Your task to perform on an android device: Go to display settings Image 0: 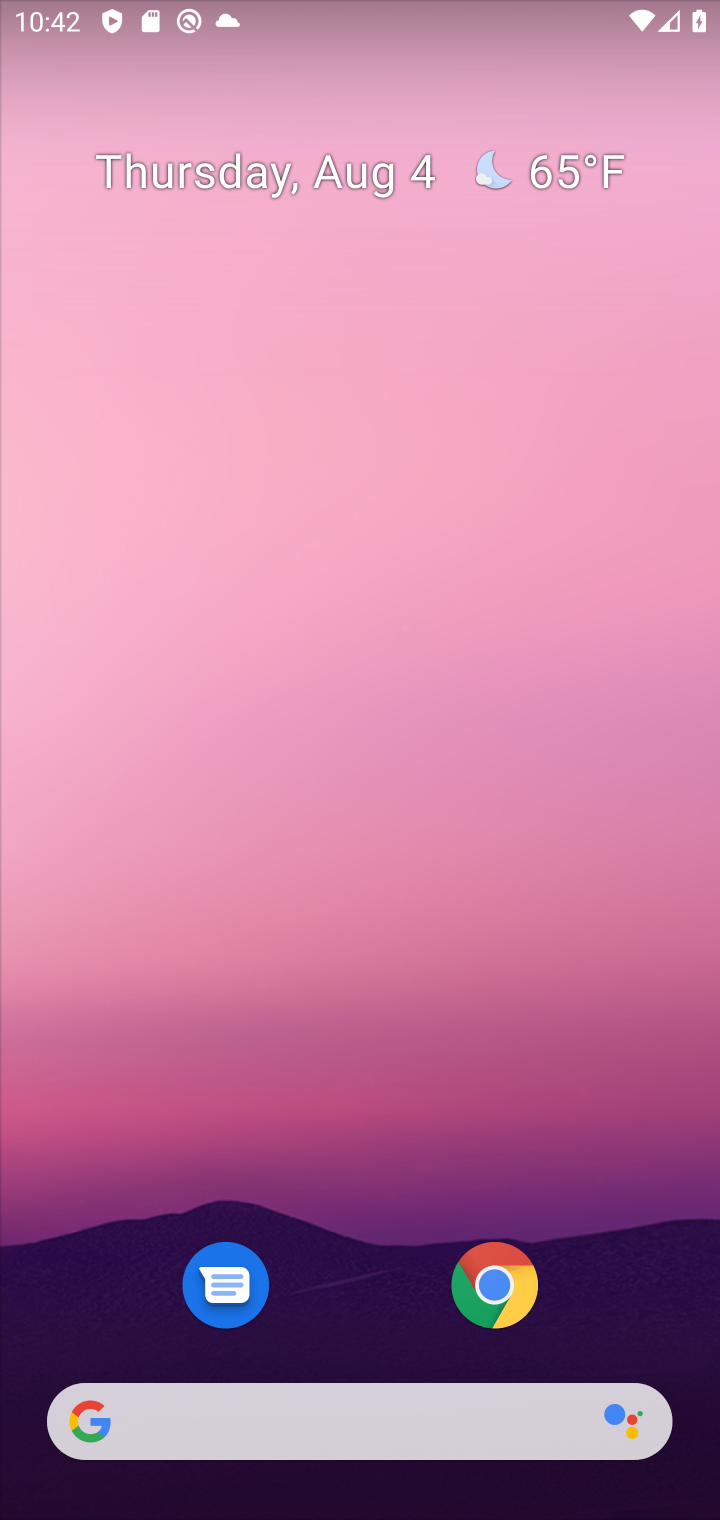
Step 0: drag from (330, 1258) to (327, 257)
Your task to perform on an android device: Go to display settings Image 1: 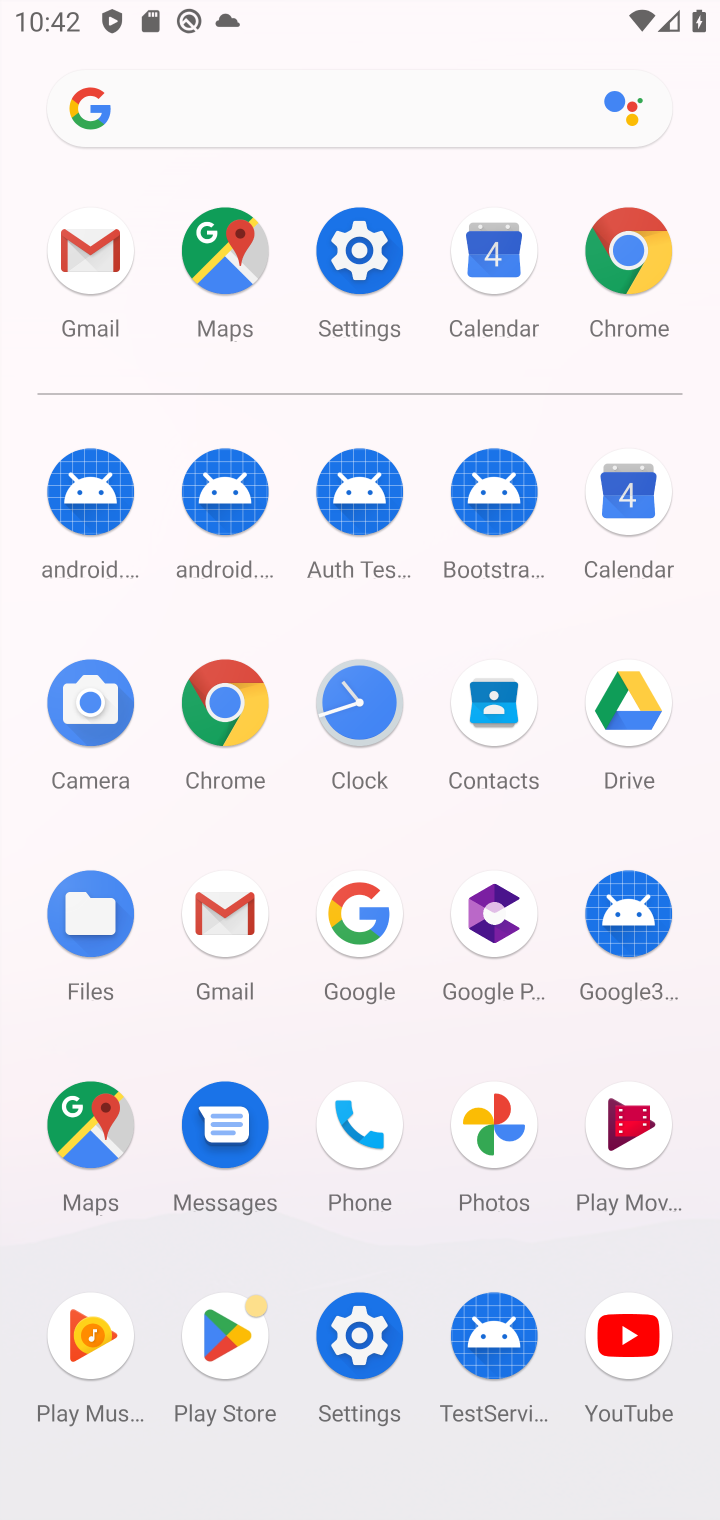
Step 1: click (352, 234)
Your task to perform on an android device: Go to display settings Image 2: 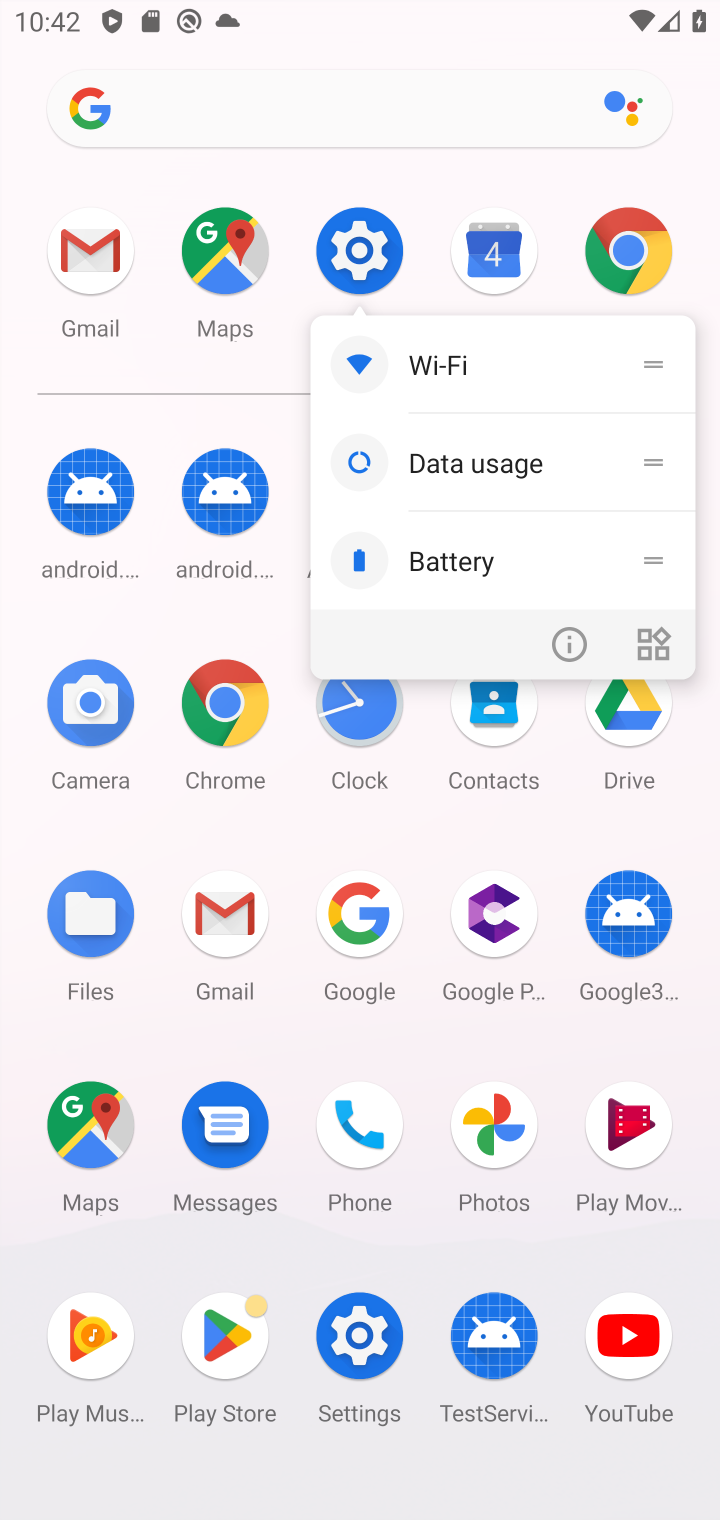
Step 2: click (367, 269)
Your task to perform on an android device: Go to display settings Image 3: 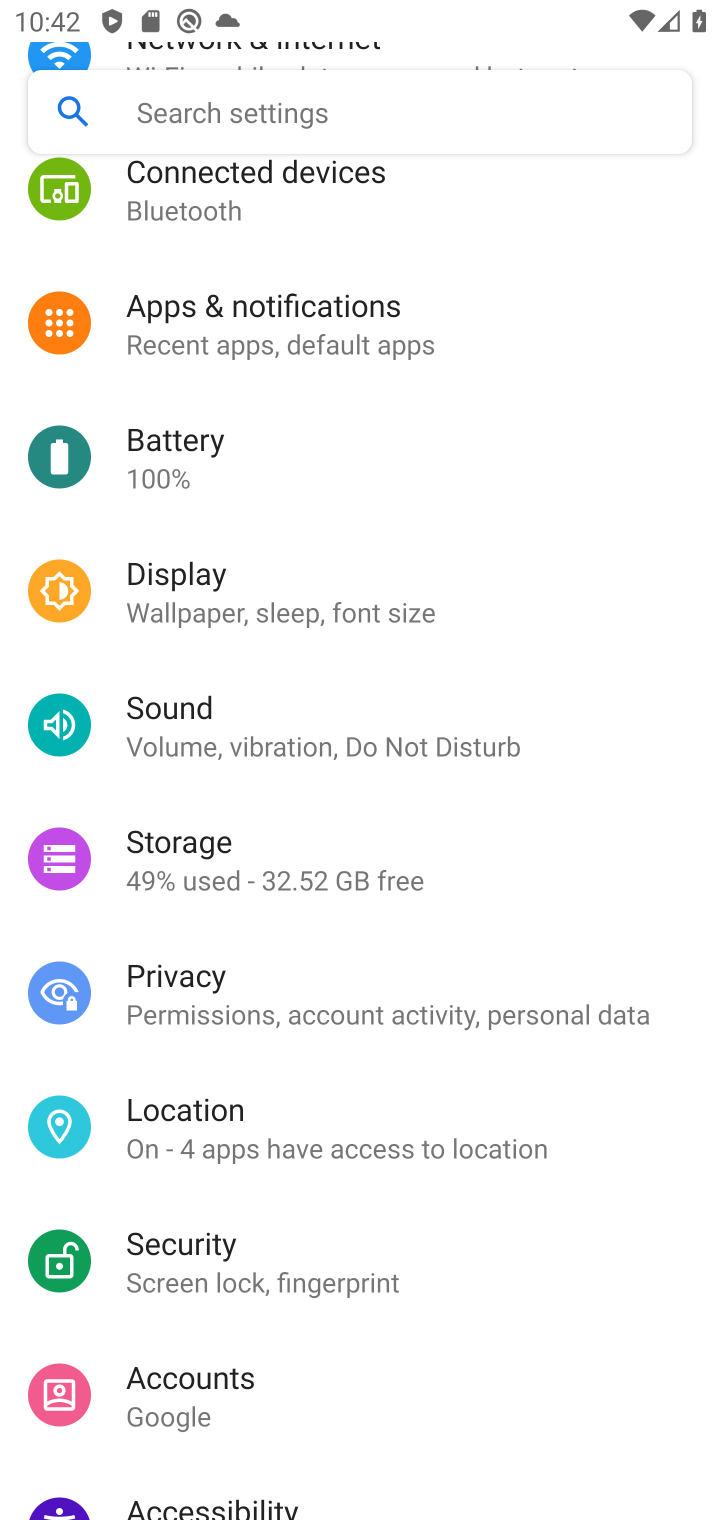
Step 3: click (215, 568)
Your task to perform on an android device: Go to display settings Image 4: 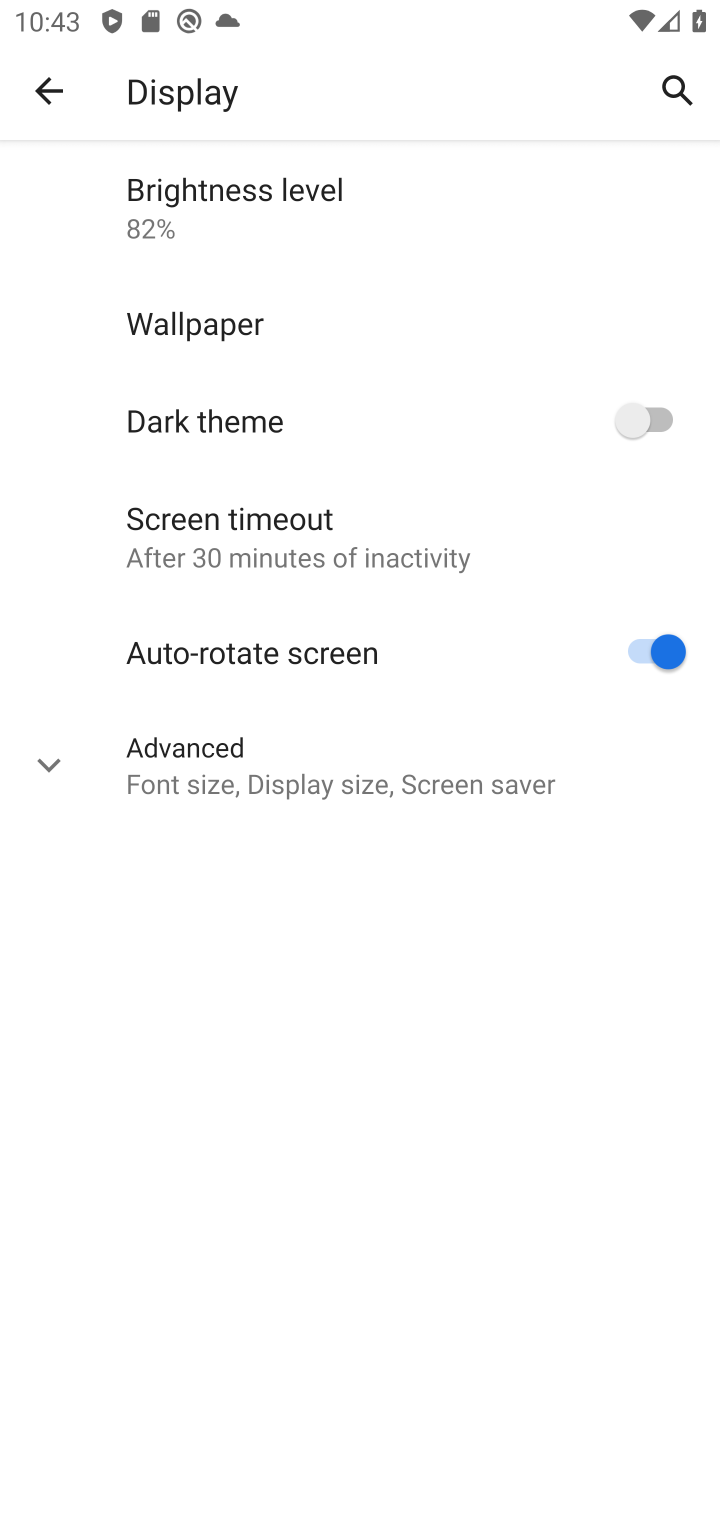
Step 4: task complete